Your task to perform on an android device: Open sound settings Image 0: 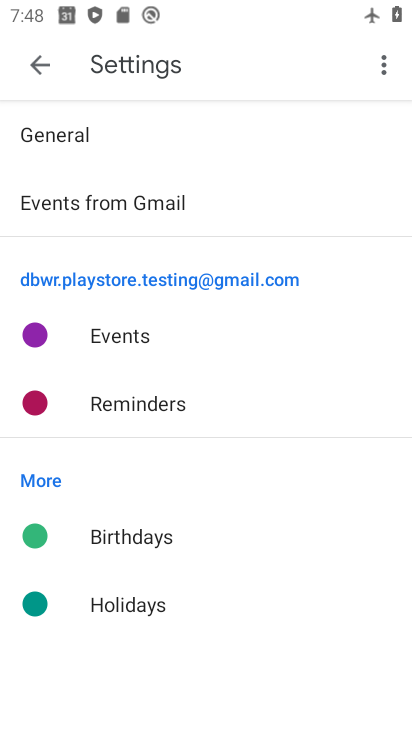
Step 0: press home button
Your task to perform on an android device: Open sound settings Image 1: 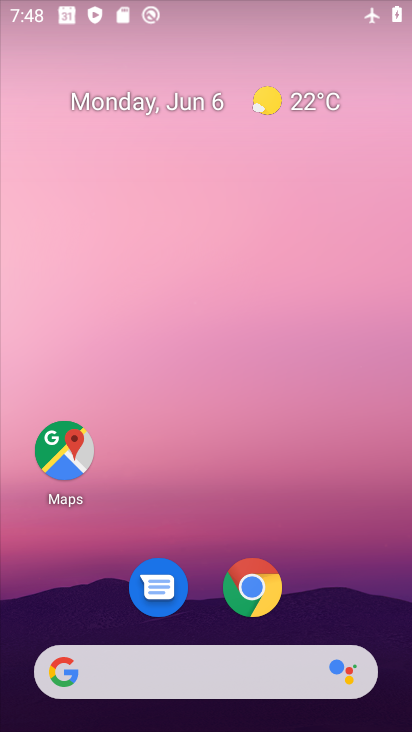
Step 1: drag from (173, 647) to (219, 319)
Your task to perform on an android device: Open sound settings Image 2: 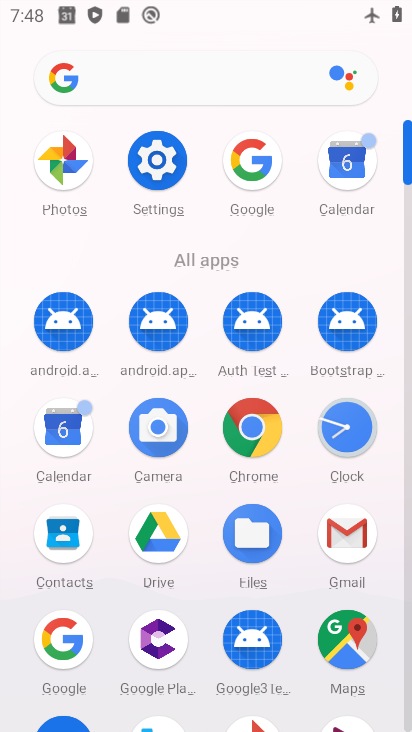
Step 2: click (171, 173)
Your task to perform on an android device: Open sound settings Image 3: 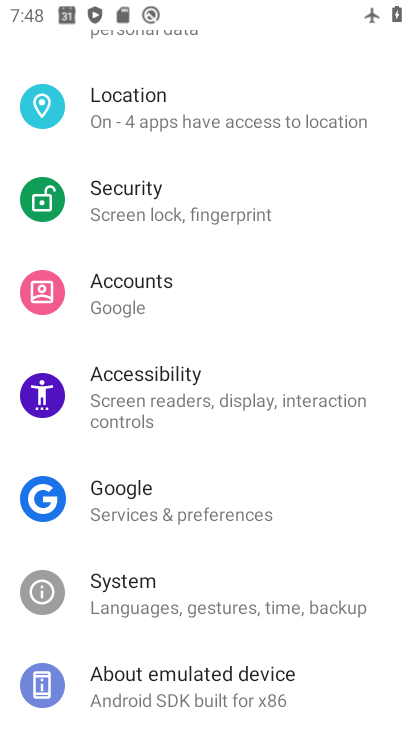
Step 3: drag from (207, 135) to (205, 561)
Your task to perform on an android device: Open sound settings Image 4: 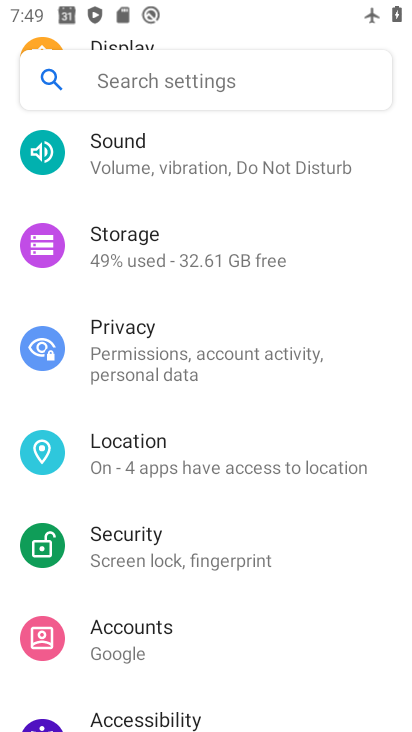
Step 4: click (140, 154)
Your task to perform on an android device: Open sound settings Image 5: 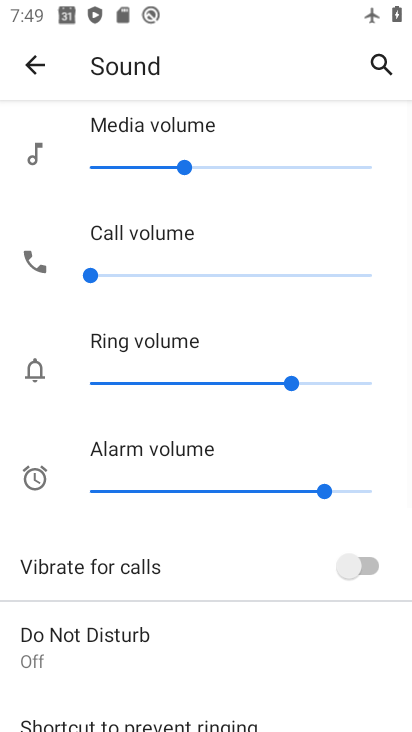
Step 5: drag from (191, 663) to (167, 344)
Your task to perform on an android device: Open sound settings Image 6: 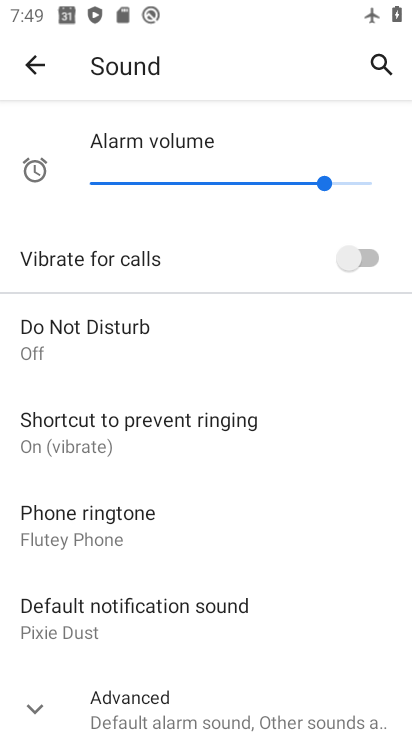
Step 6: click (175, 725)
Your task to perform on an android device: Open sound settings Image 7: 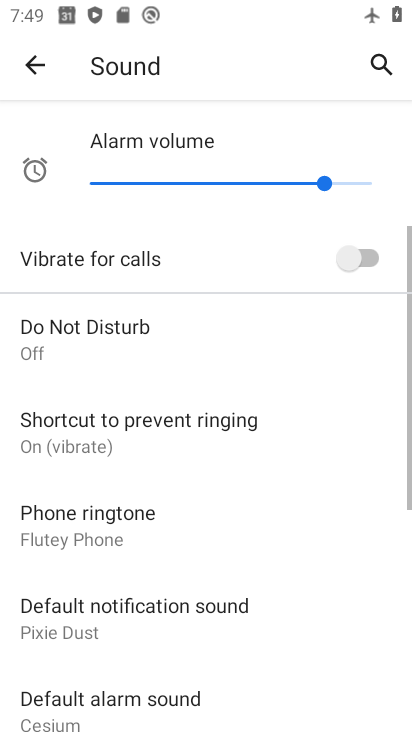
Step 7: task complete